Your task to perform on an android device: Open display settings Image 0: 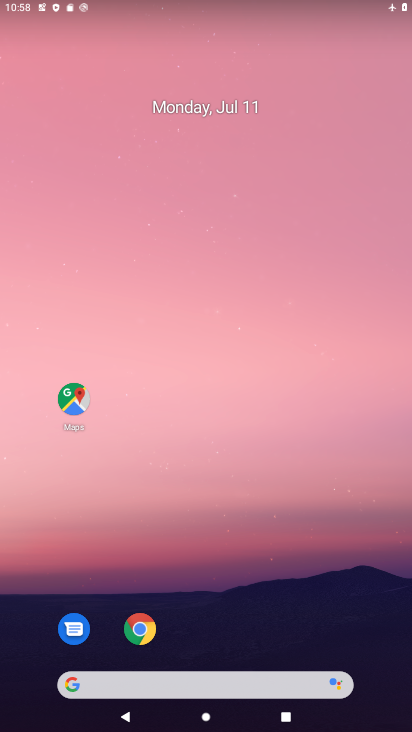
Step 0: click (285, 154)
Your task to perform on an android device: Open display settings Image 1: 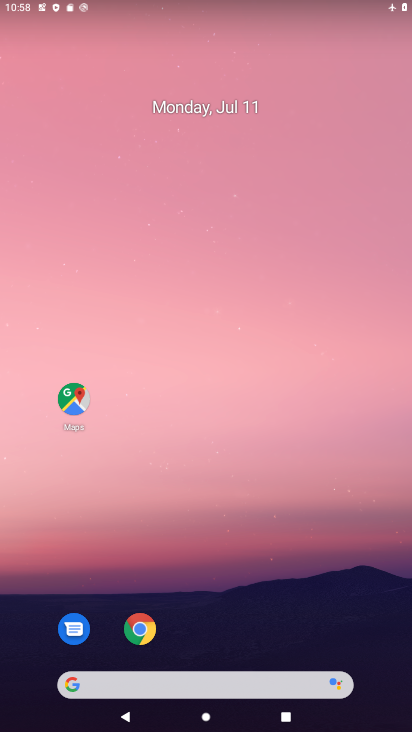
Step 1: drag from (202, 656) to (269, 208)
Your task to perform on an android device: Open display settings Image 2: 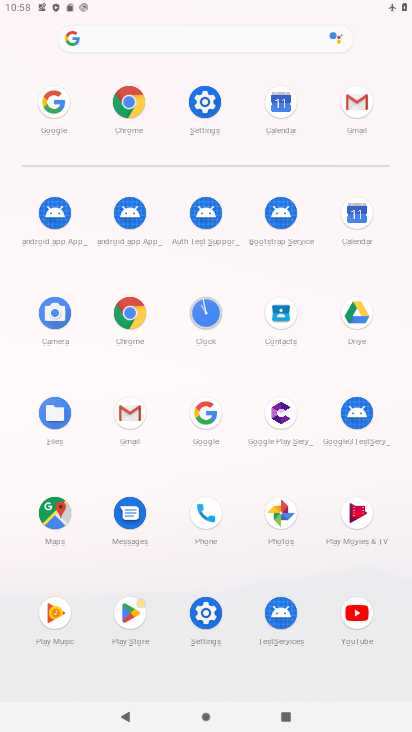
Step 2: click (211, 113)
Your task to perform on an android device: Open display settings Image 3: 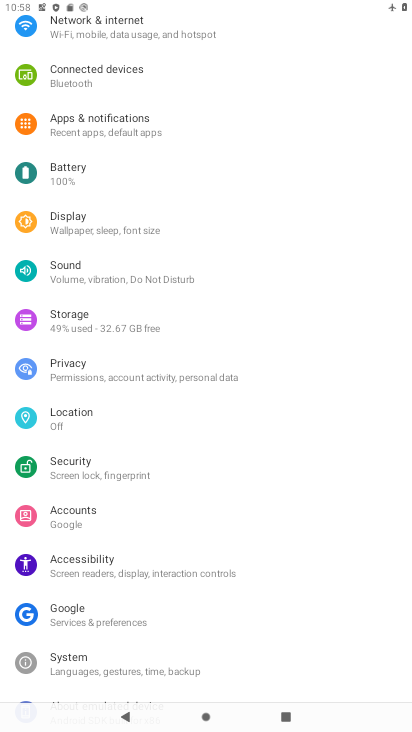
Step 3: click (129, 228)
Your task to perform on an android device: Open display settings Image 4: 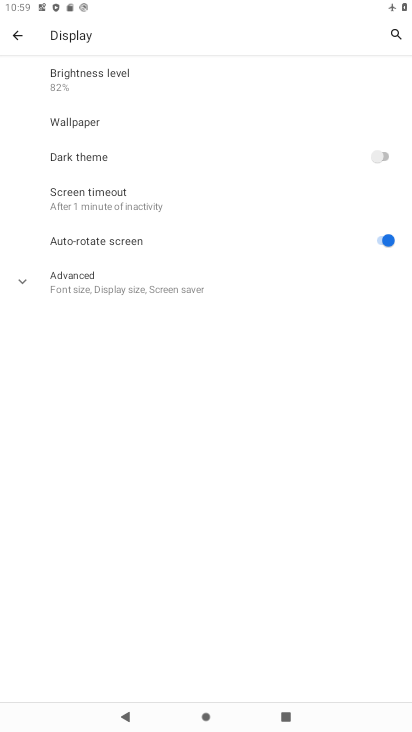
Step 4: task complete